Your task to perform on an android device: see sites visited before in the chrome app Image 0: 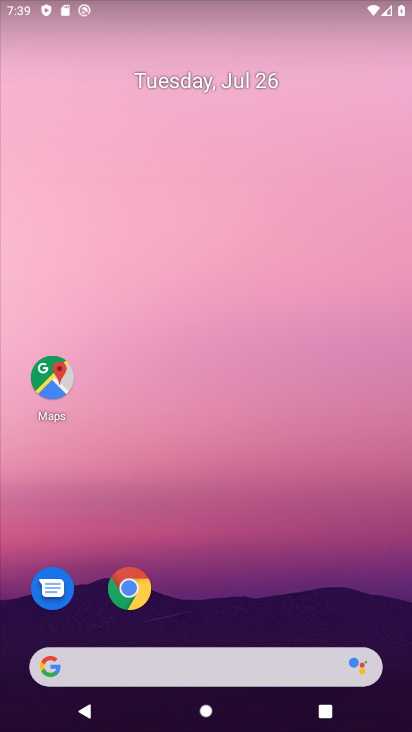
Step 0: drag from (244, 557) to (309, 43)
Your task to perform on an android device: see sites visited before in the chrome app Image 1: 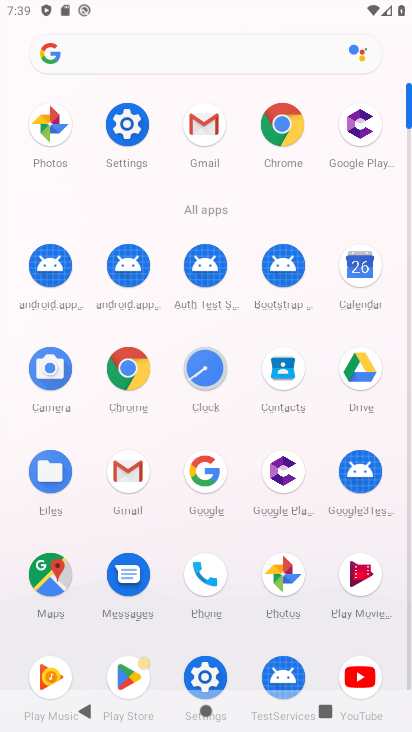
Step 1: click (289, 126)
Your task to perform on an android device: see sites visited before in the chrome app Image 2: 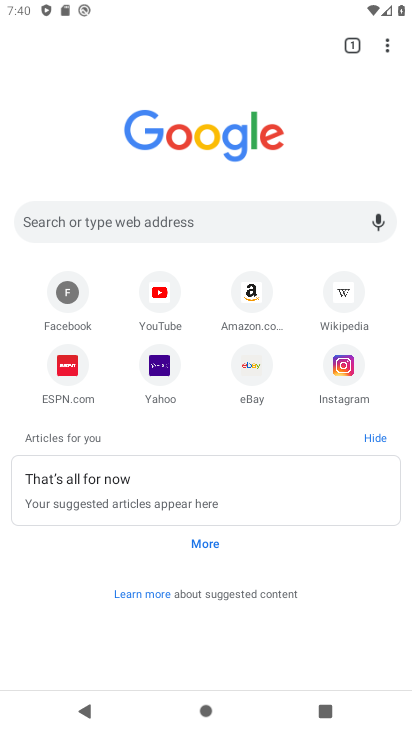
Step 2: task complete